Your task to perform on an android device: Toggle the flashlight Image 0: 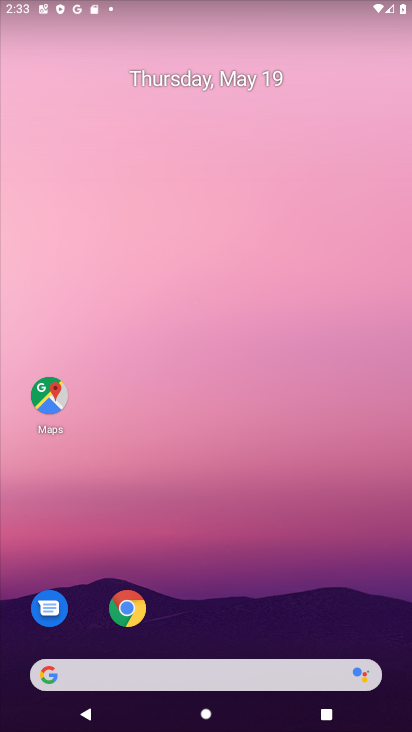
Step 0: drag from (233, 10) to (210, 550)
Your task to perform on an android device: Toggle the flashlight Image 1: 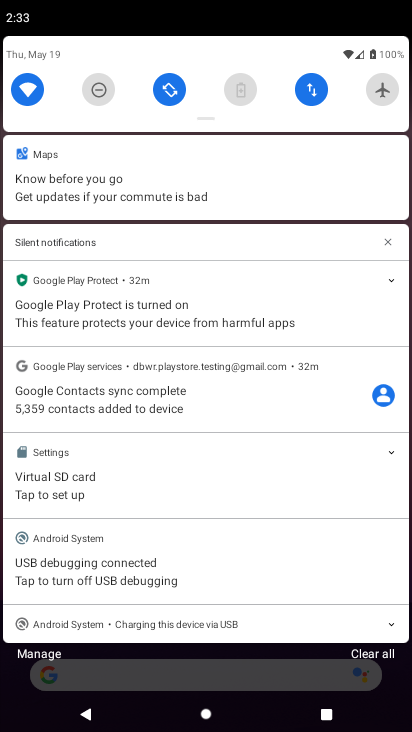
Step 1: drag from (257, 105) to (269, 345)
Your task to perform on an android device: Toggle the flashlight Image 2: 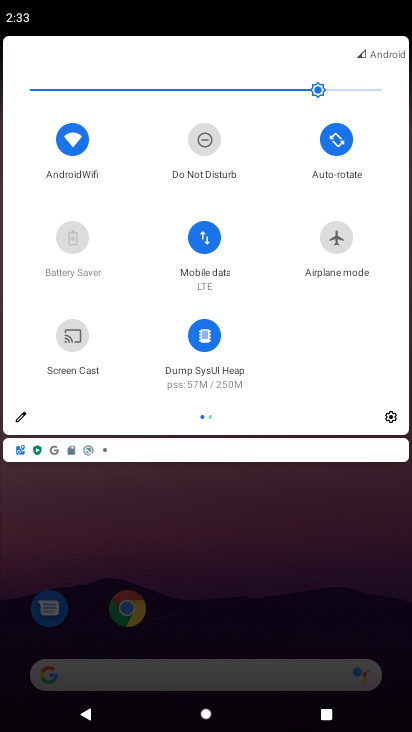
Step 2: click (26, 411)
Your task to perform on an android device: Toggle the flashlight Image 3: 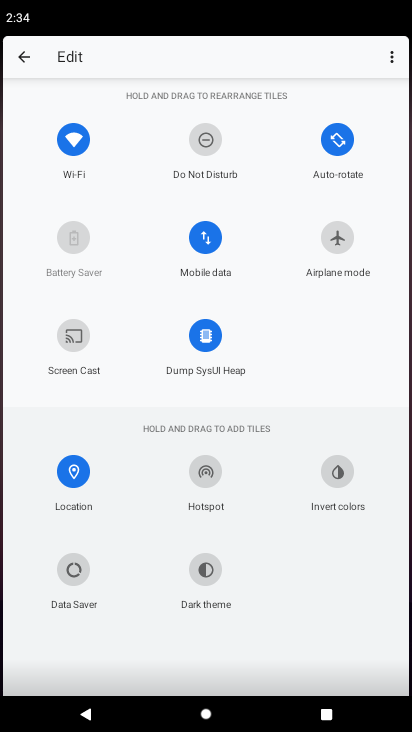
Step 3: task complete